Your task to perform on an android device: toggle airplane mode Image 0: 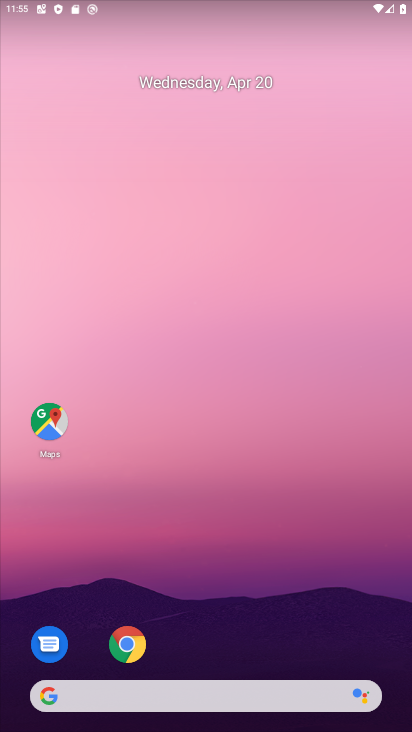
Step 0: drag from (344, 623) to (285, 276)
Your task to perform on an android device: toggle airplane mode Image 1: 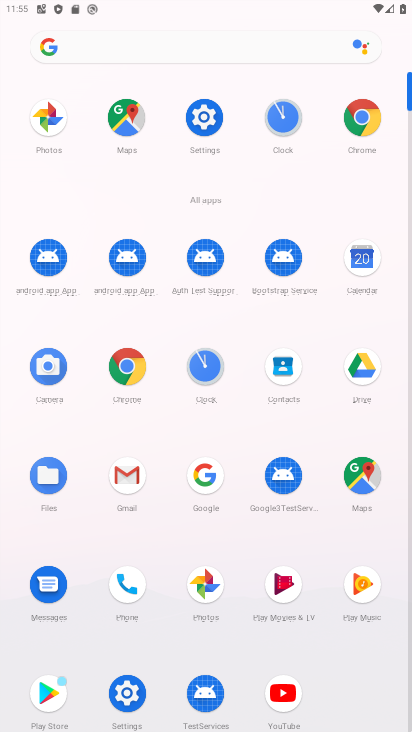
Step 1: click (127, 690)
Your task to perform on an android device: toggle airplane mode Image 2: 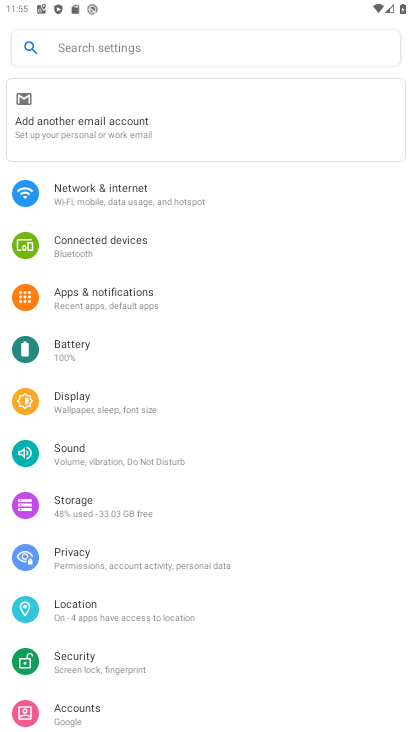
Step 2: click (80, 187)
Your task to perform on an android device: toggle airplane mode Image 3: 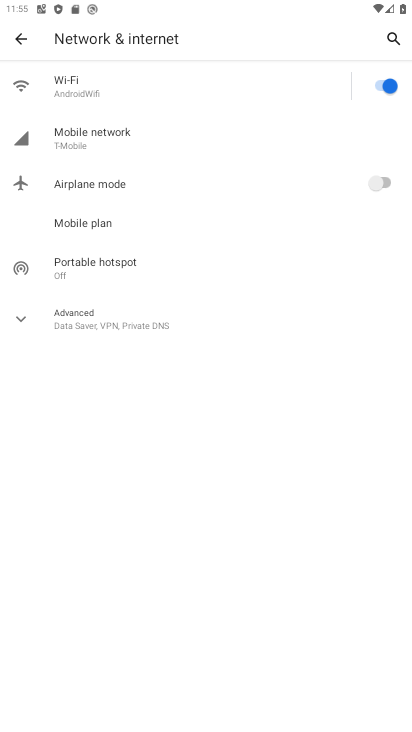
Step 3: click (389, 181)
Your task to perform on an android device: toggle airplane mode Image 4: 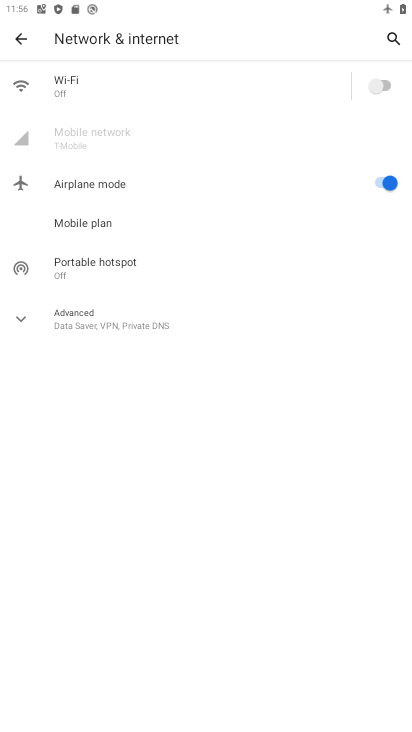
Step 4: task complete